Your task to perform on an android device: open app "Pandora - Music & Podcasts" (install if not already installed), go to login, and select forgot password Image 0: 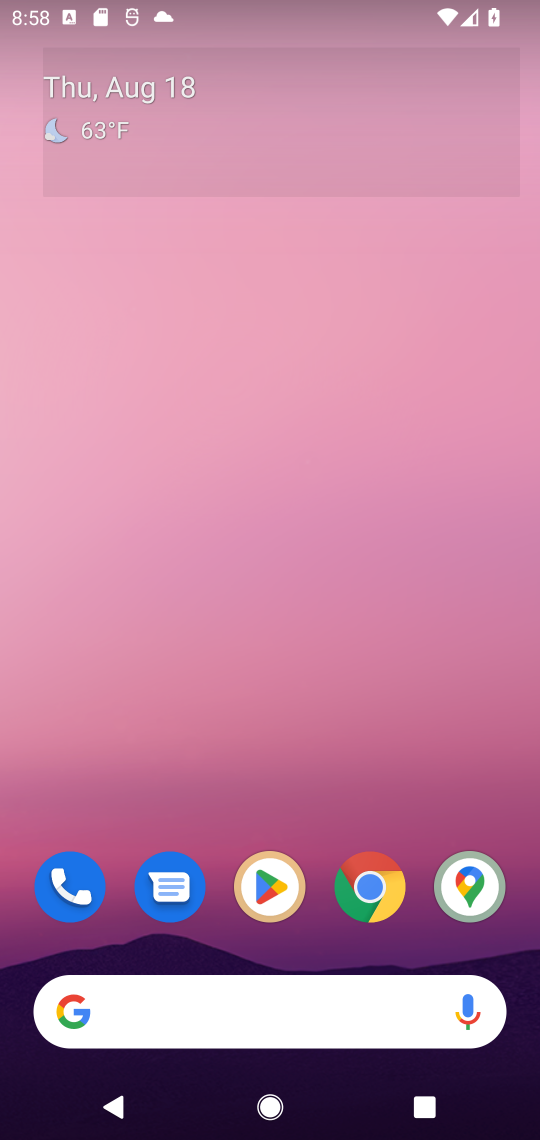
Step 0: click (275, 889)
Your task to perform on an android device: open app "Pandora - Music & Podcasts" (install if not already installed), go to login, and select forgot password Image 1: 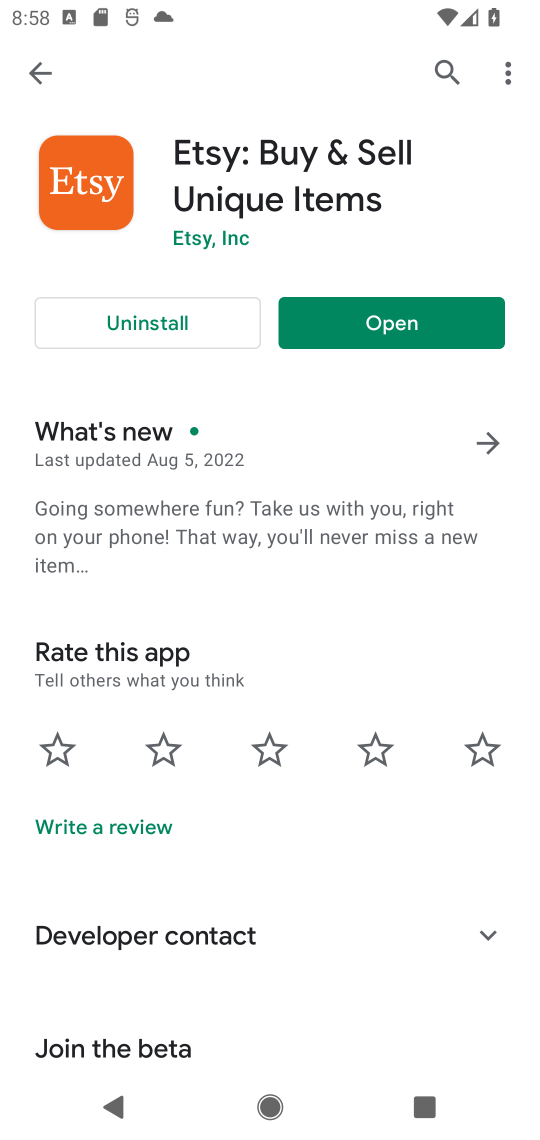
Step 1: click (440, 66)
Your task to perform on an android device: open app "Pandora - Music & Podcasts" (install if not already installed), go to login, and select forgot password Image 2: 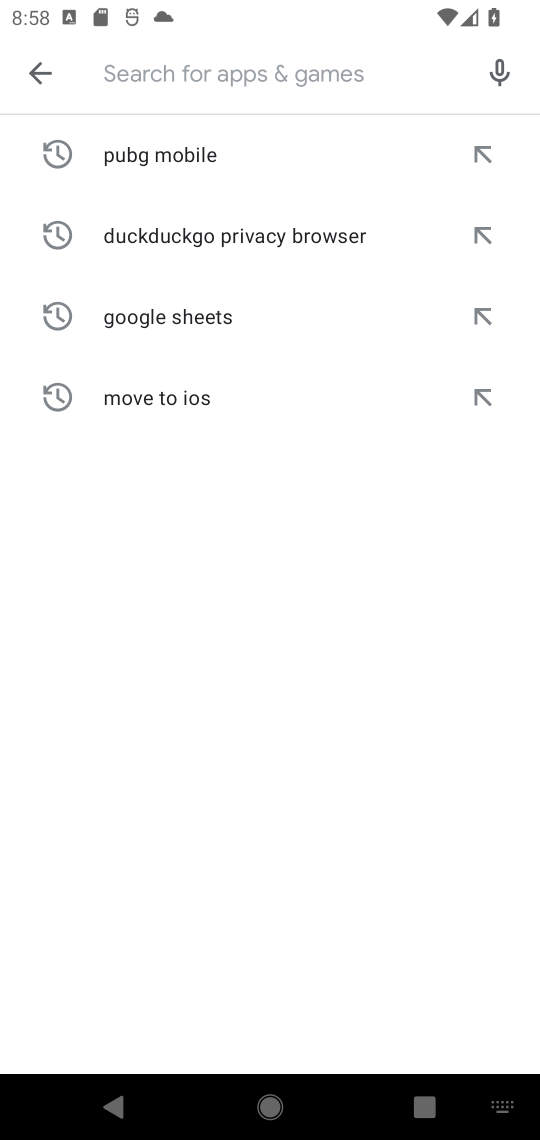
Step 2: type "Pandora - Music & Podcasts"
Your task to perform on an android device: open app "Pandora - Music & Podcasts" (install if not already installed), go to login, and select forgot password Image 3: 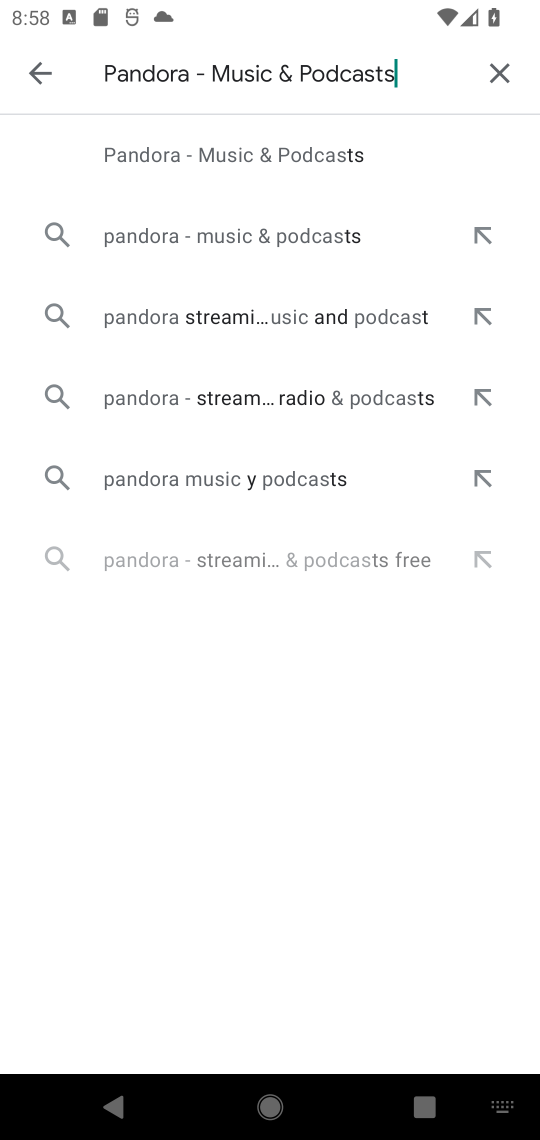
Step 3: type ""
Your task to perform on an android device: open app "Pandora - Music & Podcasts" (install if not already installed), go to login, and select forgot password Image 4: 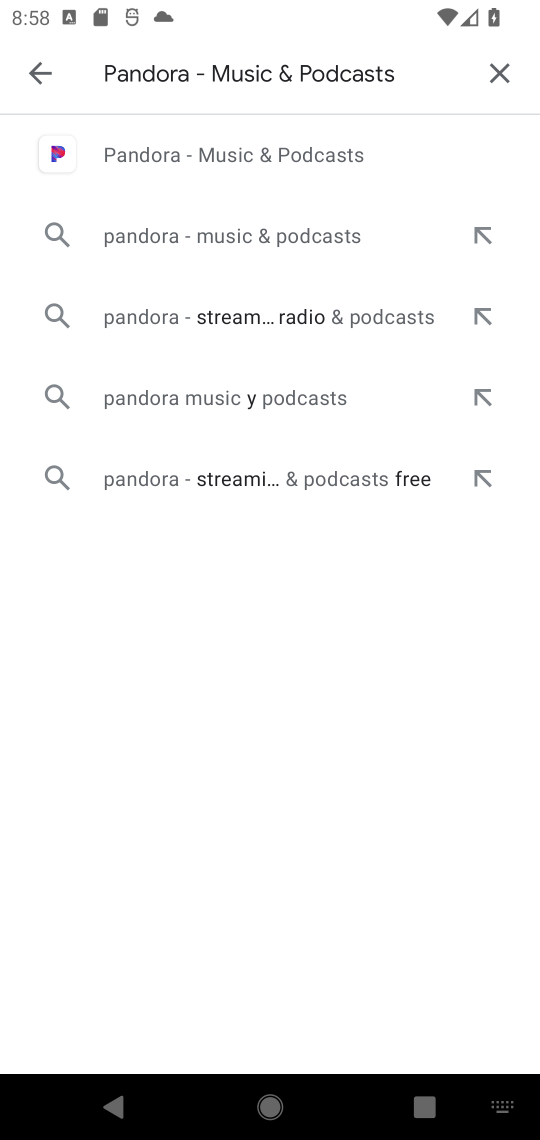
Step 4: click (228, 151)
Your task to perform on an android device: open app "Pandora - Music & Podcasts" (install if not already installed), go to login, and select forgot password Image 5: 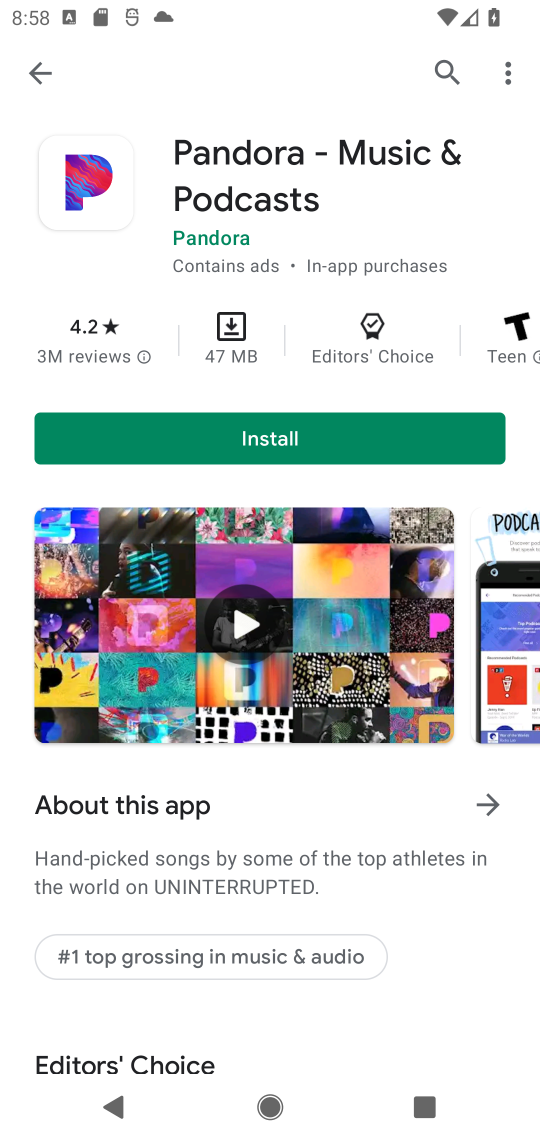
Step 5: click (278, 438)
Your task to perform on an android device: open app "Pandora - Music & Podcasts" (install if not already installed), go to login, and select forgot password Image 6: 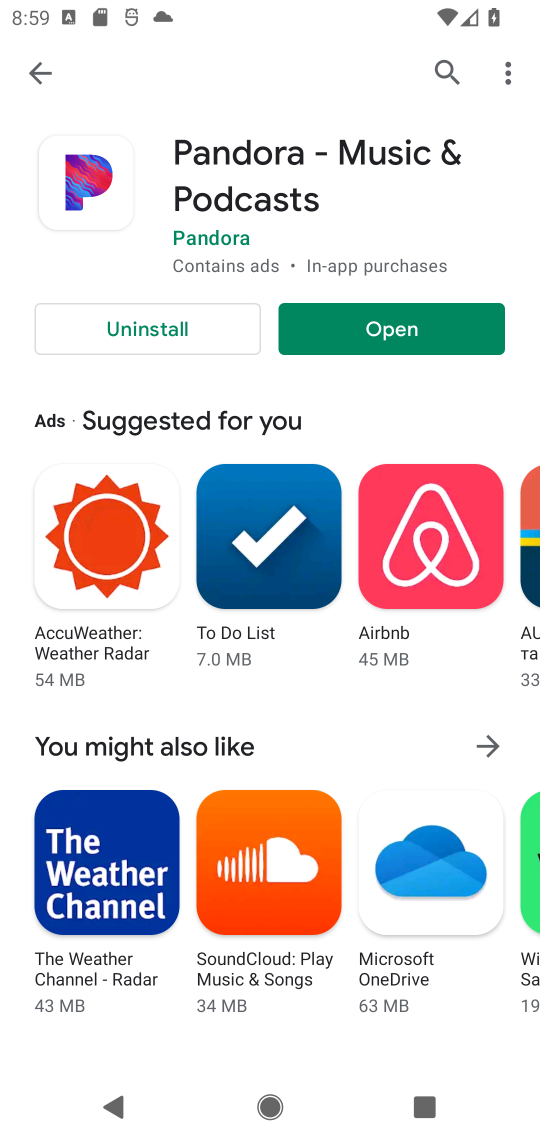
Step 6: click (401, 329)
Your task to perform on an android device: open app "Pandora - Music & Podcasts" (install if not already installed), go to login, and select forgot password Image 7: 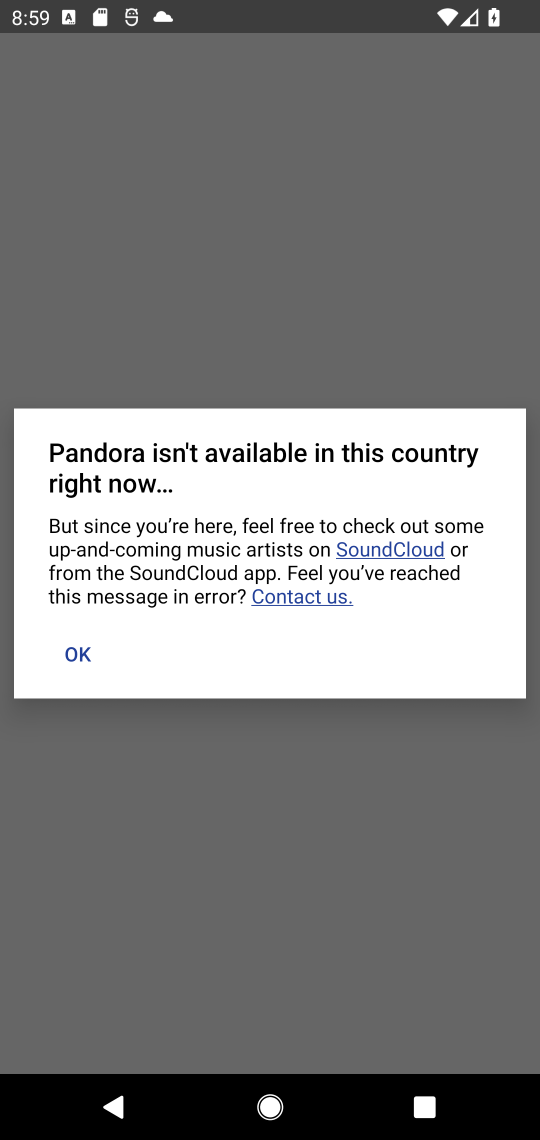
Step 7: click (78, 654)
Your task to perform on an android device: open app "Pandora - Music & Podcasts" (install if not already installed), go to login, and select forgot password Image 8: 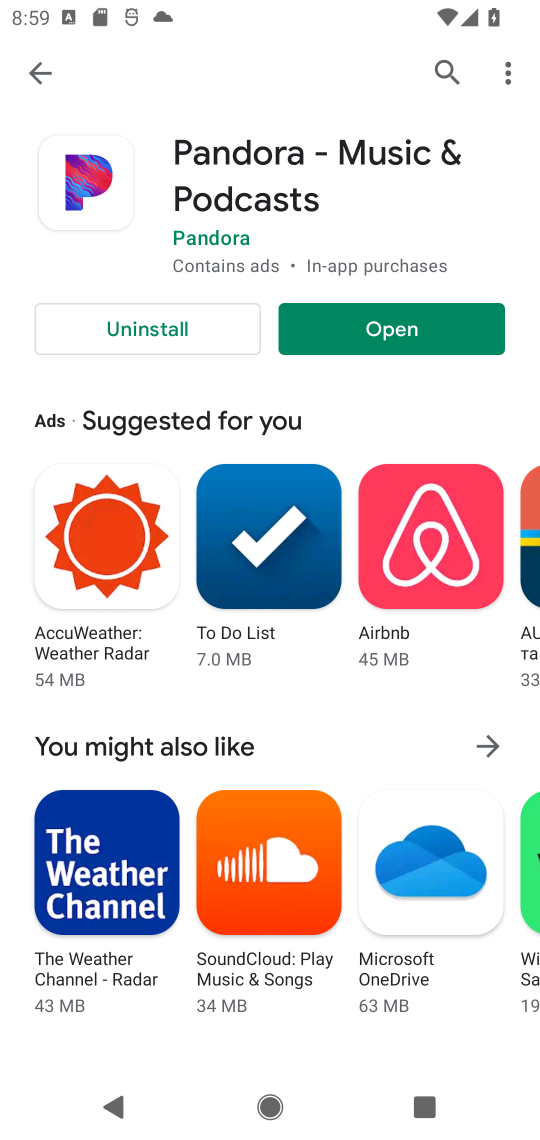
Step 8: task complete